Your task to perform on an android device: turn on data saver in the chrome app Image 0: 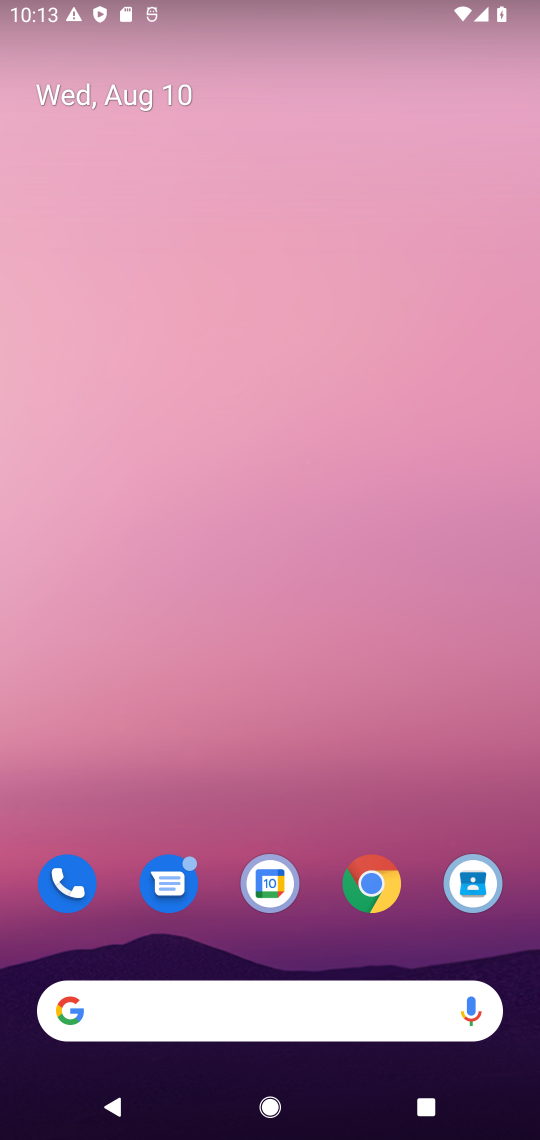
Step 0: press home button
Your task to perform on an android device: turn on data saver in the chrome app Image 1: 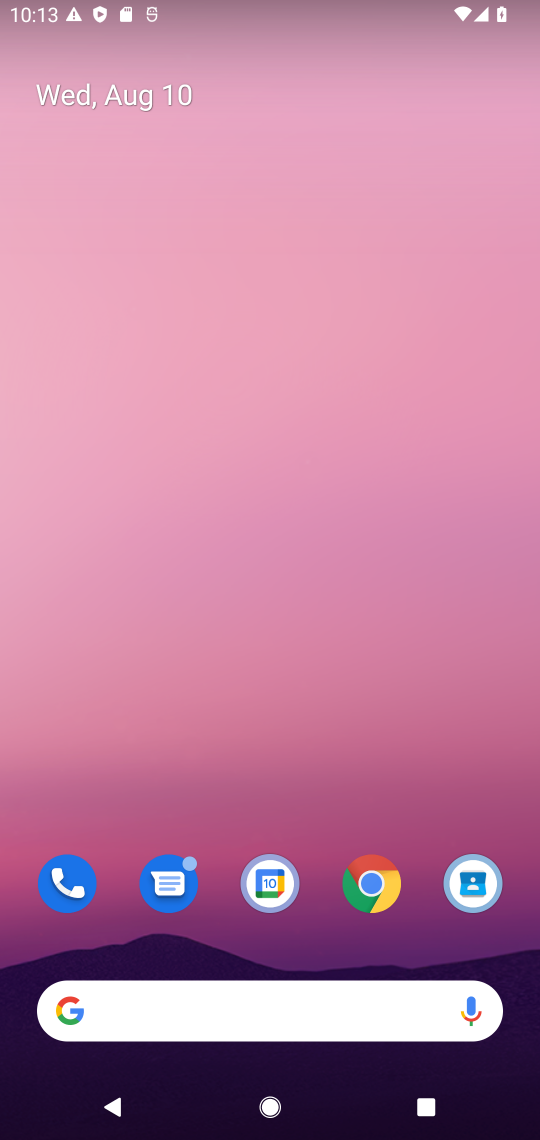
Step 1: drag from (323, 931) to (367, 23)
Your task to perform on an android device: turn on data saver in the chrome app Image 2: 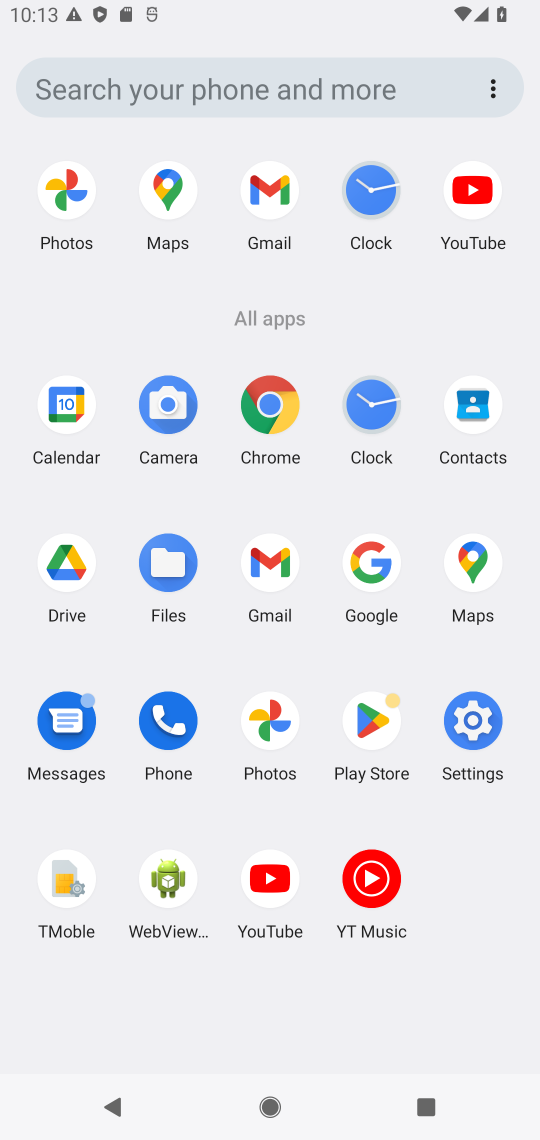
Step 2: click (268, 410)
Your task to perform on an android device: turn on data saver in the chrome app Image 3: 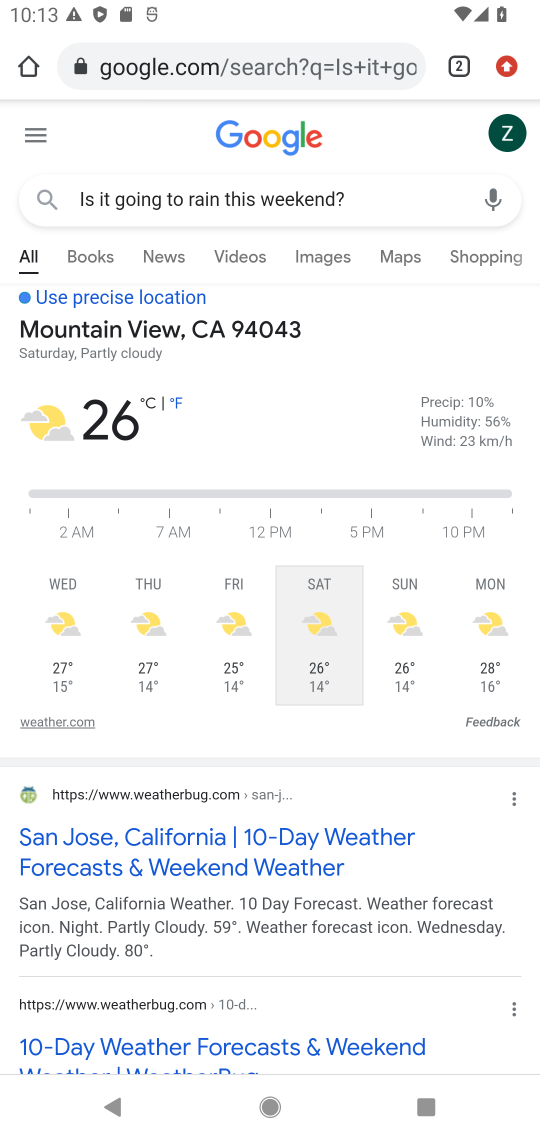
Step 3: drag from (512, 67) to (324, 871)
Your task to perform on an android device: turn on data saver in the chrome app Image 4: 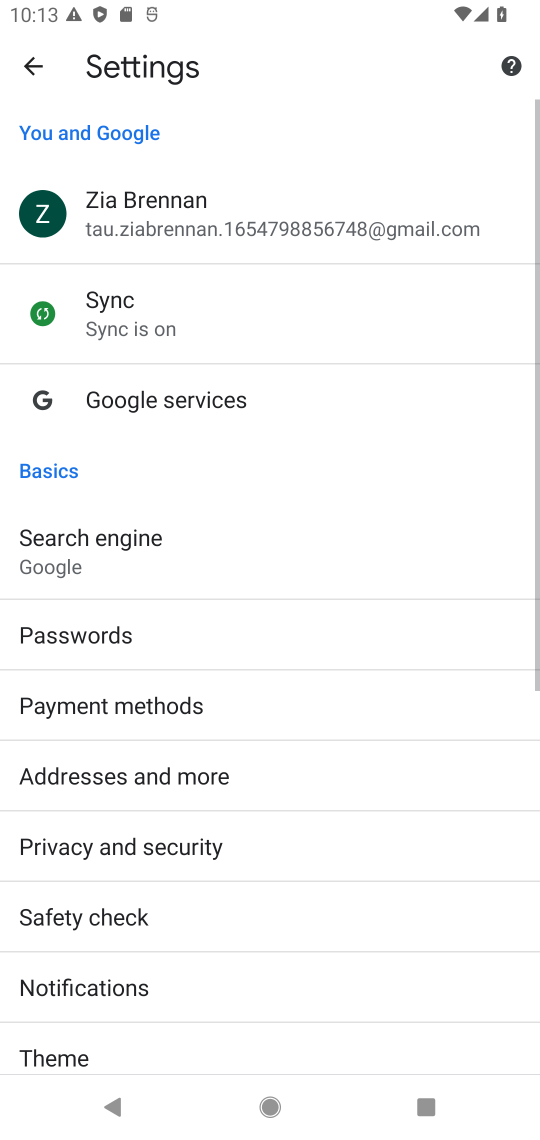
Step 4: drag from (239, 970) to (223, 297)
Your task to perform on an android device: turn on data saver in the chrome app Image 5: 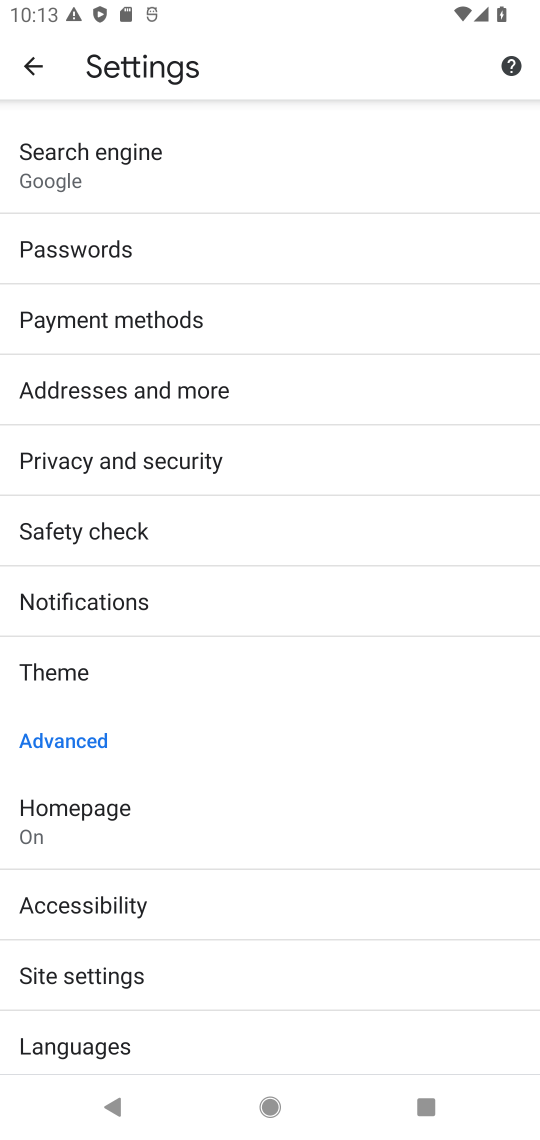
Step 5: drag from (148, 978) to (116, 572)
Your task to perform on an android device: turn on data saver in the chrome app Image 6: 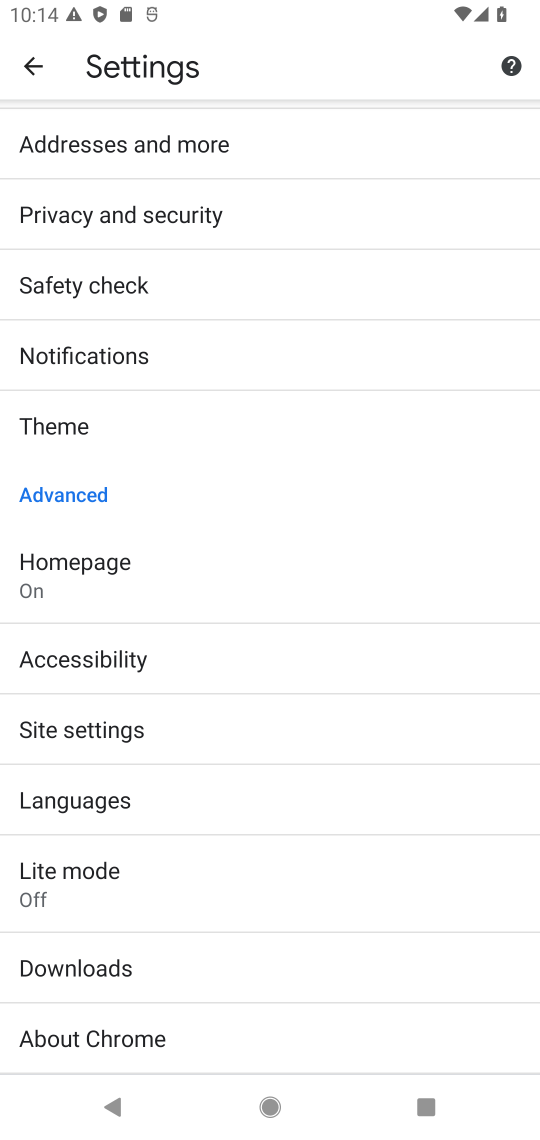
Step 6: click (90, 859)
Your task to perform on an android device: turn on data saver in the chrome app Image 7: 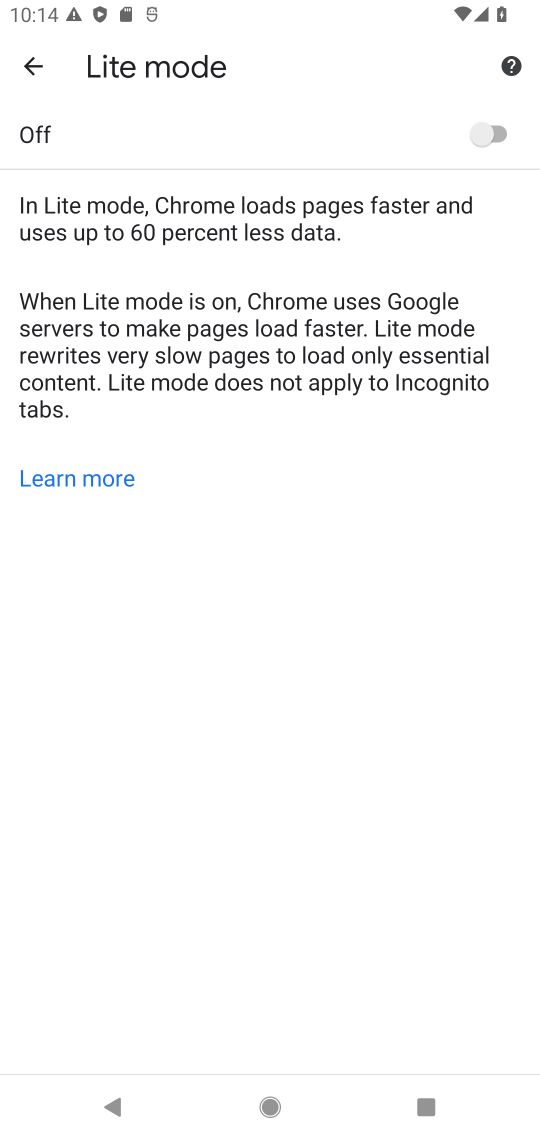
Step 7: click (455, 130)
Your task to perform on an android device: turn on data saver in the chrome app Image 8: 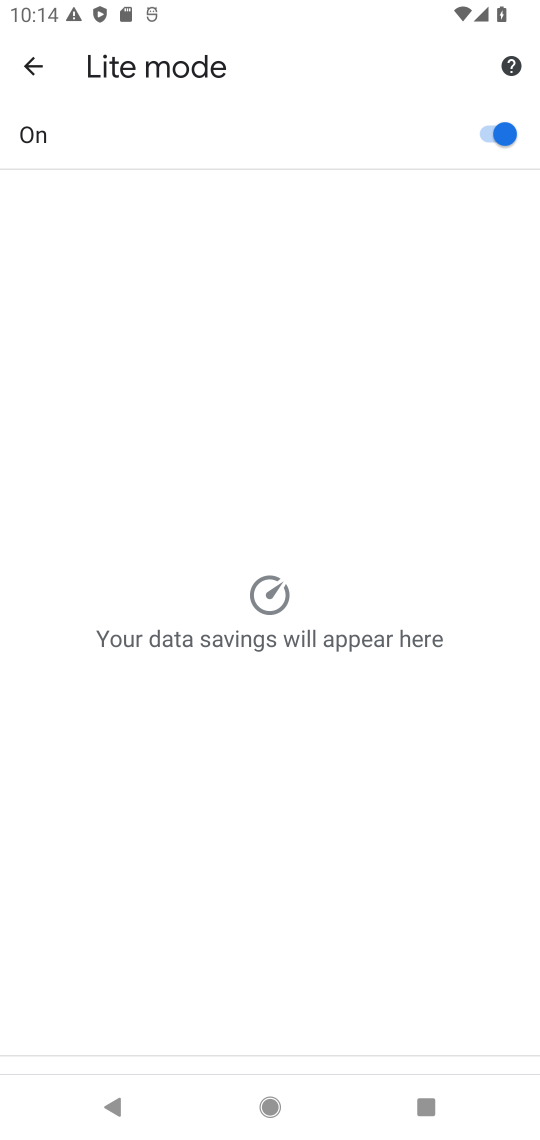
Step 8: task complete